Your task to perform on an android device: check android version Image 0: 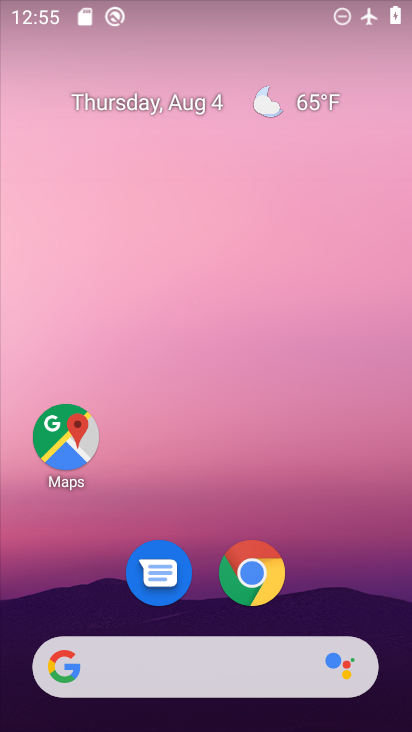
Step 0: drag from (328, 527) to (290, 199)
Your task to perform on an android device: check android version Image 1: 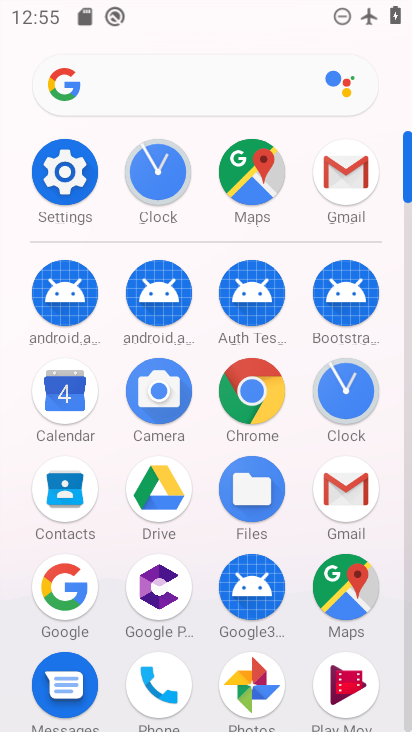
Step 1: click (47, 178)
Your task to perform on an android device: check android version Image 2: 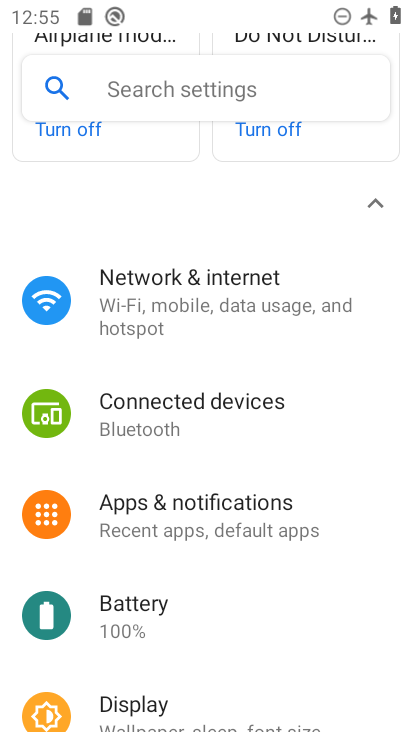
Step 2: drag from (266, 574) to (295, 110)
Your task to perform on an android device: check android version Image 3: 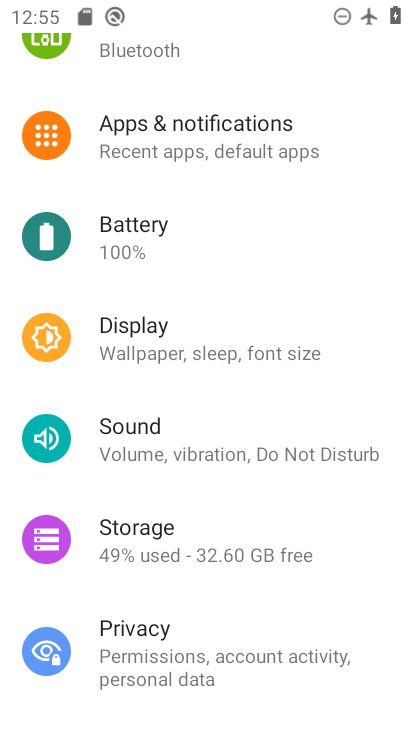
Step 3: drag from (287, 613) to (311, 134)
Your task to perform on an android device: check android version Image 4: 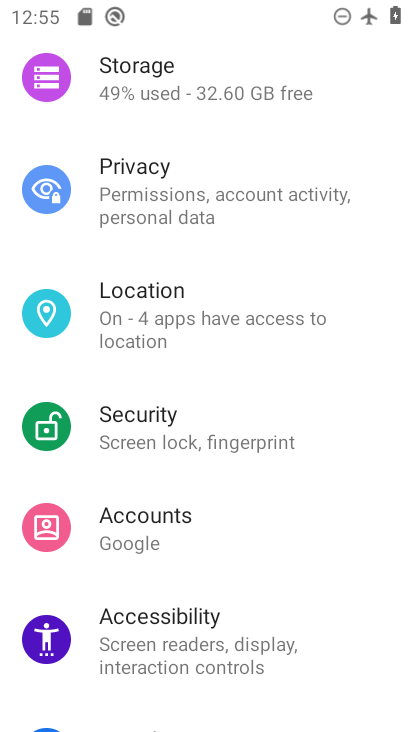
Step 4: drag from (256, 615) to (272, 184)
Your task to perform on an android device: check android version Image 5: 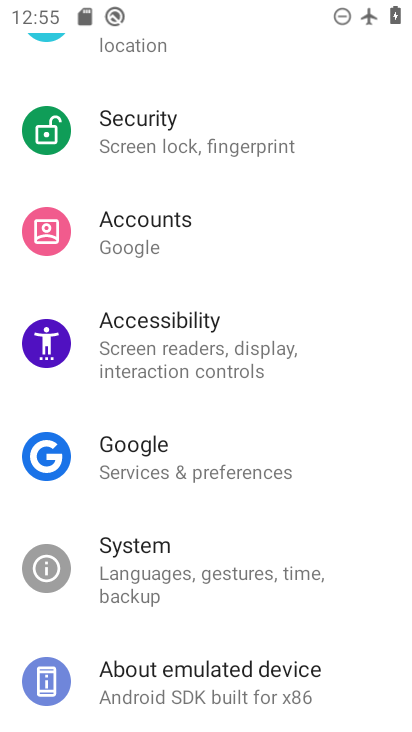
Step 5: click (202, 690)
Your task to perform on an android device: check android version Image 6: 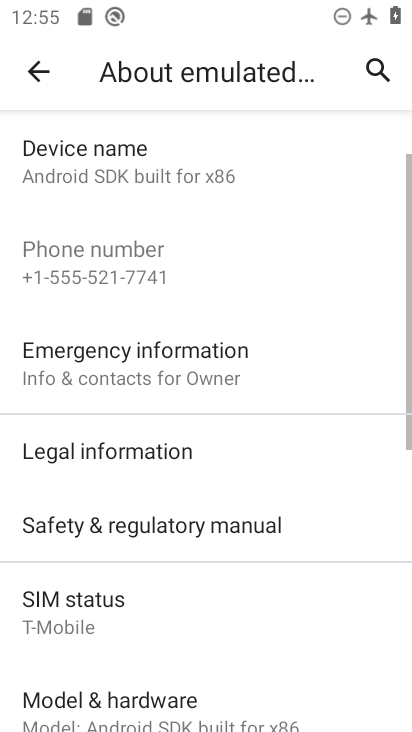
Step 6: drag from (279, 636) to (287, 203)
Your task to perform on an android device: check android version Image 7: 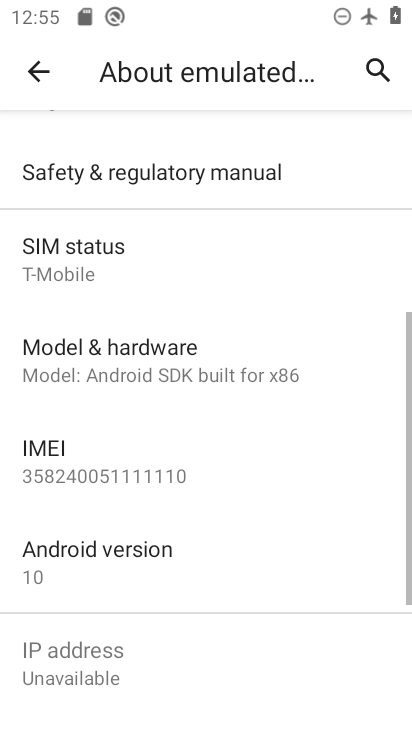
Step 7: drag from (147, 669) to (227, 309)
Your task to perform on an android device: check android version Image 8: 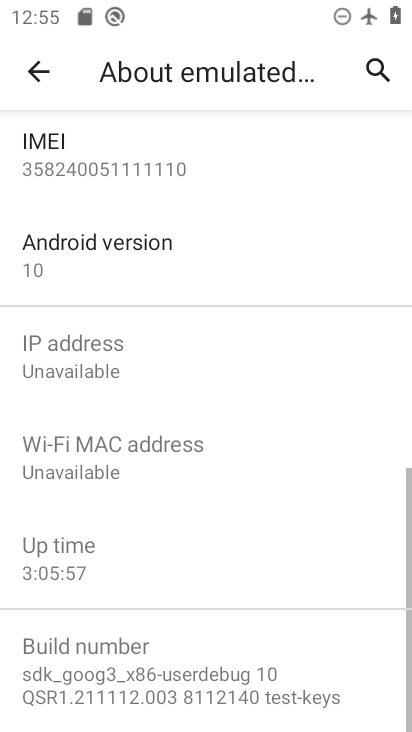
Step 8: click (108, 281)
Your task to perform on an android device: check android version Image 9: 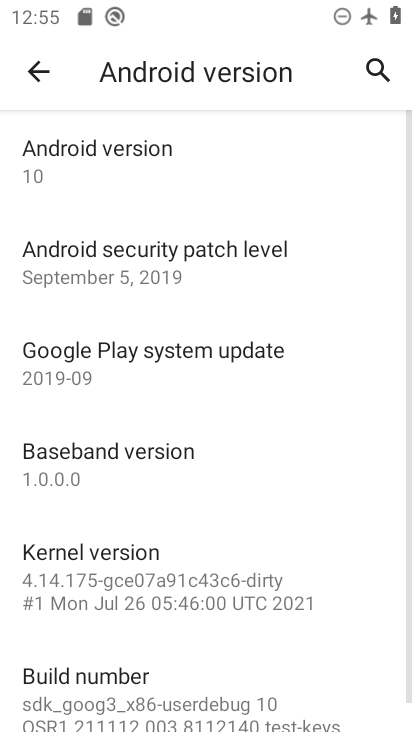
Step 9: task complete